Your task to perform on an android device: turn on notifications settings in the gmail app Image 0: 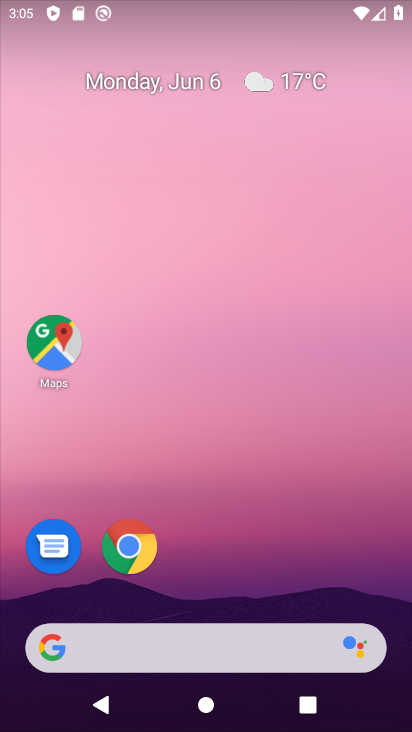
Step 0: drag from (251, 467) to (360, 0)
Your task to perform on an android device: turn on notifications settings in the gmail app Image 1: 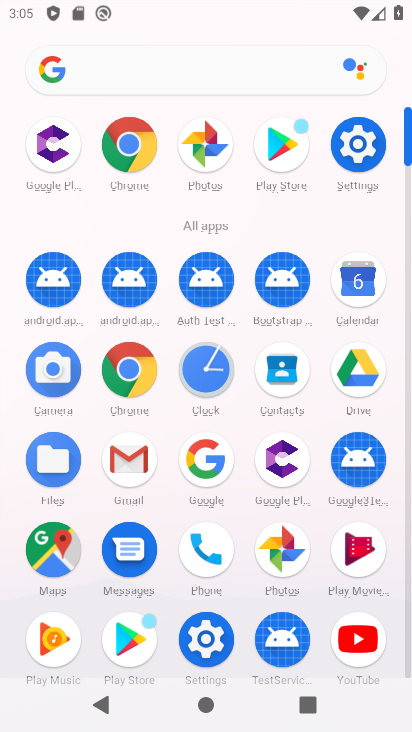
Step 1: click (362, 135)
Your task to perform on an android device: turn on notifications settings in the gmail app Image 2: 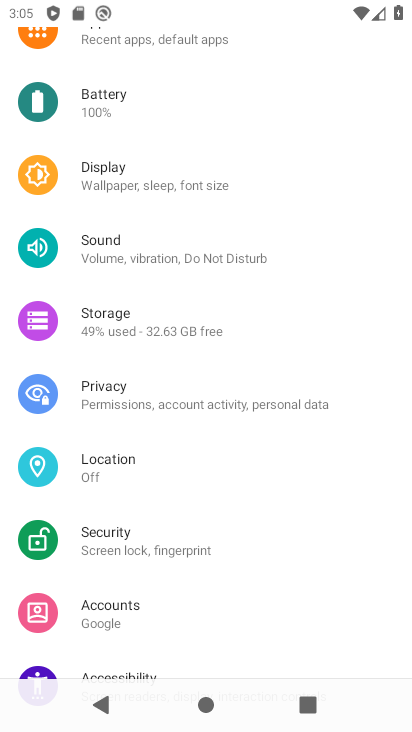
Step 2: drag from (237, 121) to (279, 655)
Your task to perform on an android device: turn on notifications settings in the gmail app Image 3: 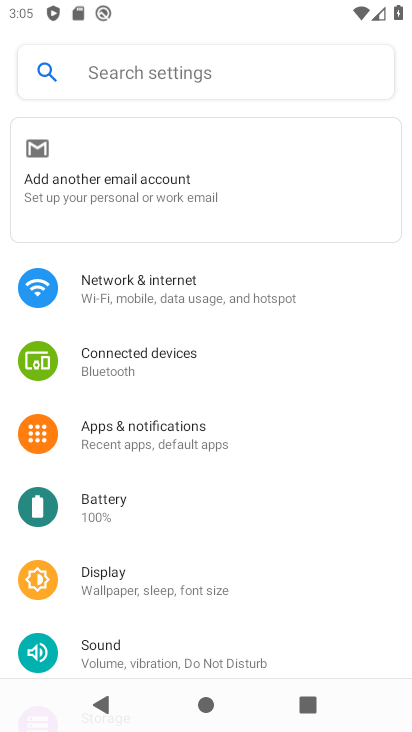
Step 3: click (179, 424)
Your task to perform on an android device: turn on notifications settings in the gmail app Image 4: 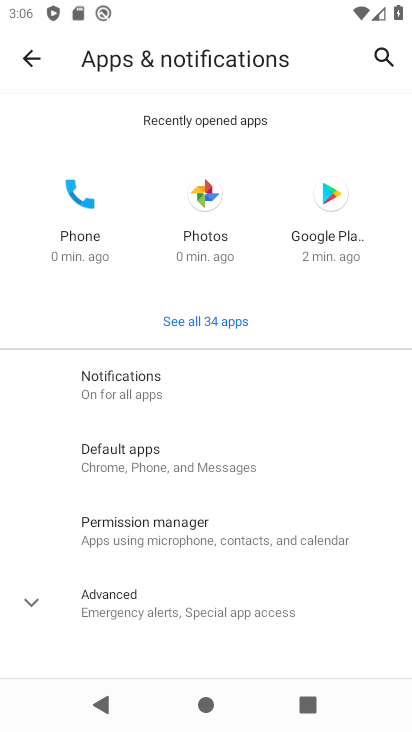
Step 4: click (135, 396)
Your task to perform on an android device: turn on notifications settings in the gmail app Image 5: 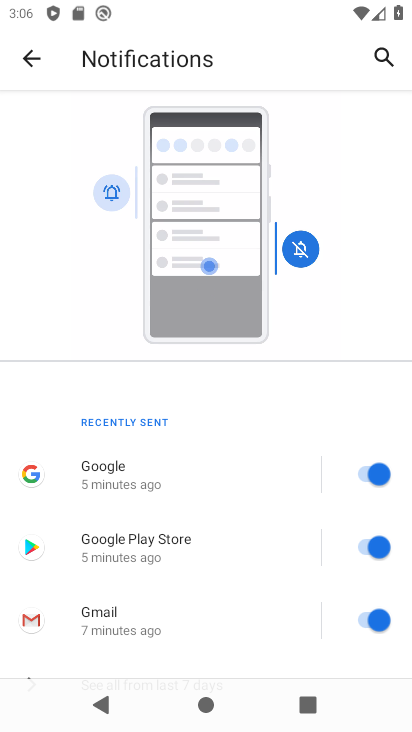
Step 5: task complete